Your task to perform on an android device: Do I have any events today? Image 0: 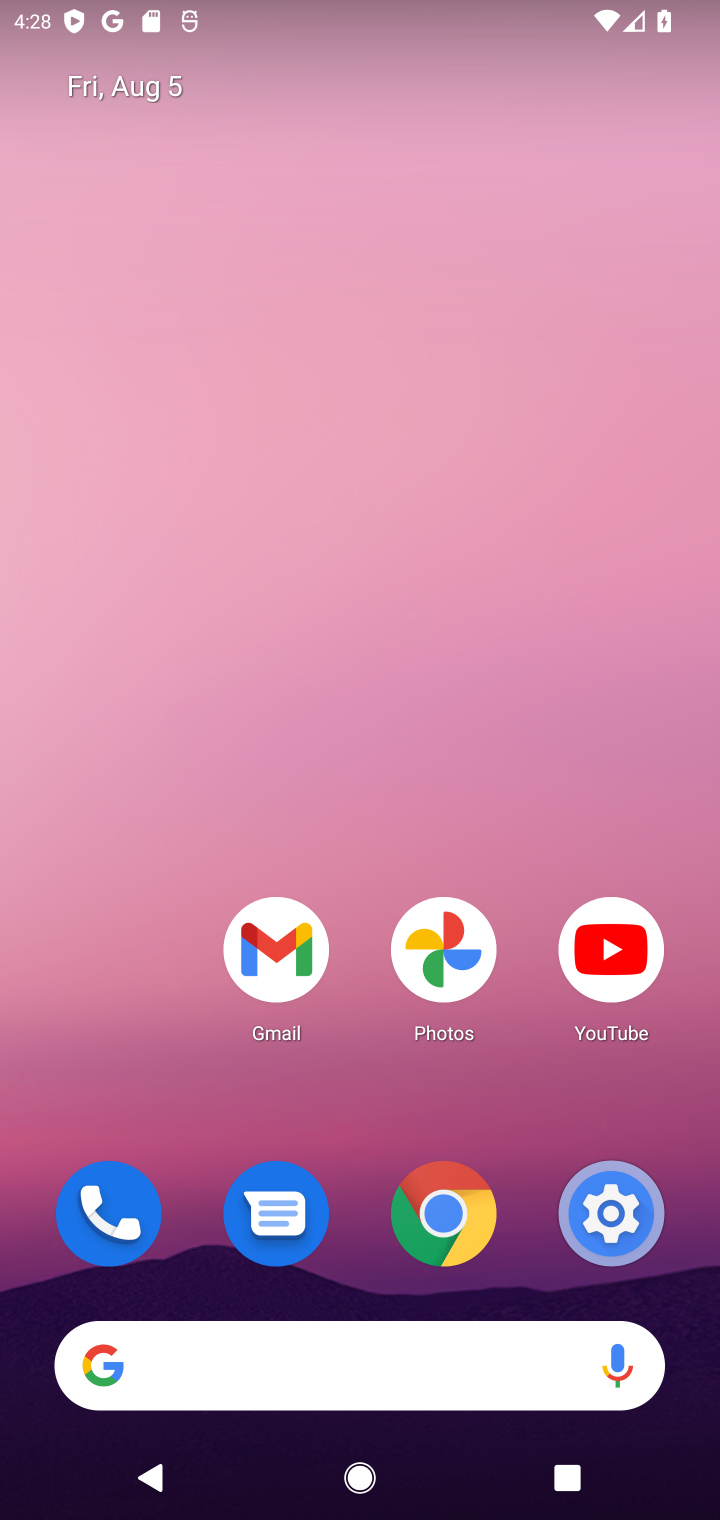
Step 0: press home button
Your task to perform on an android device: Do I have any events today? Image 1: 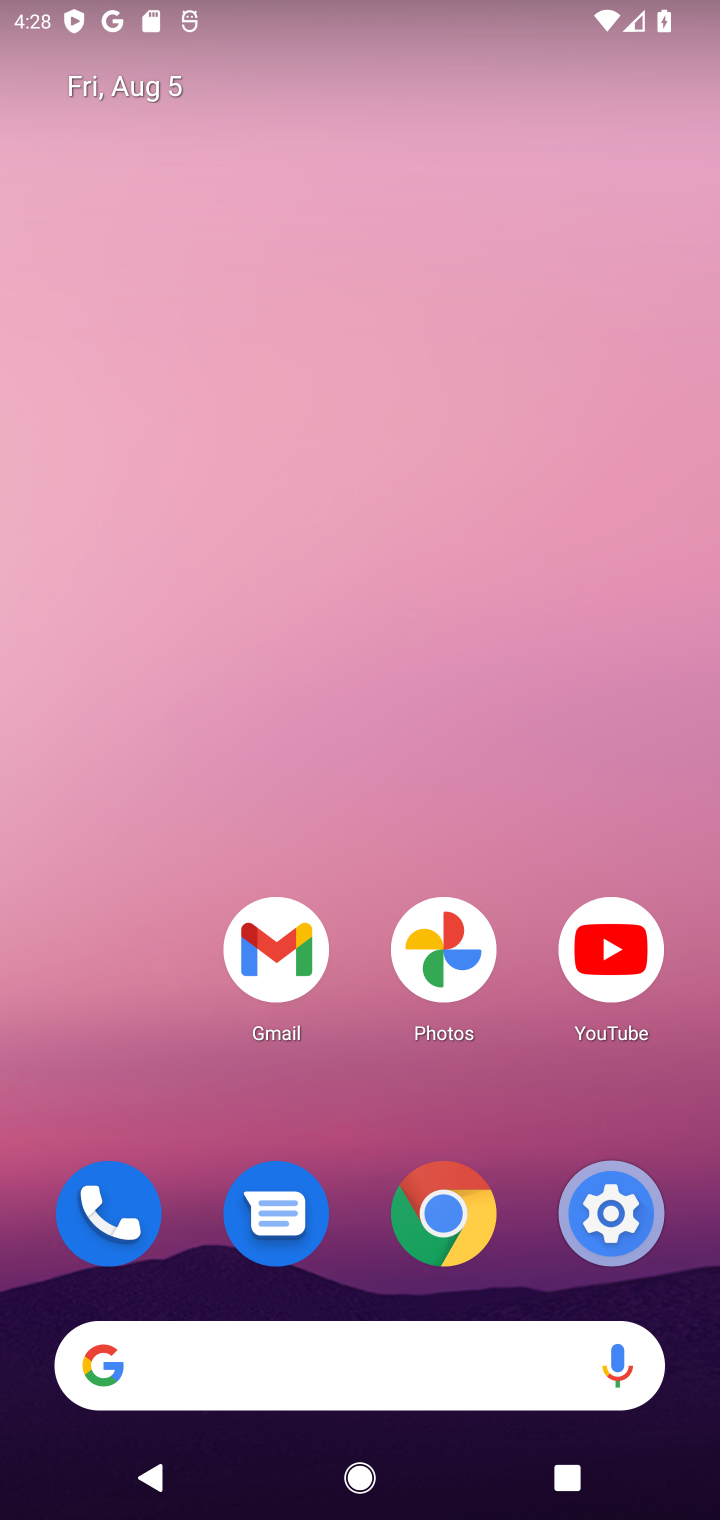
Step 1: drag from (673, 1125) to (645, 564)
Your task to perform on an android device: Do I have any events today? Image 2: 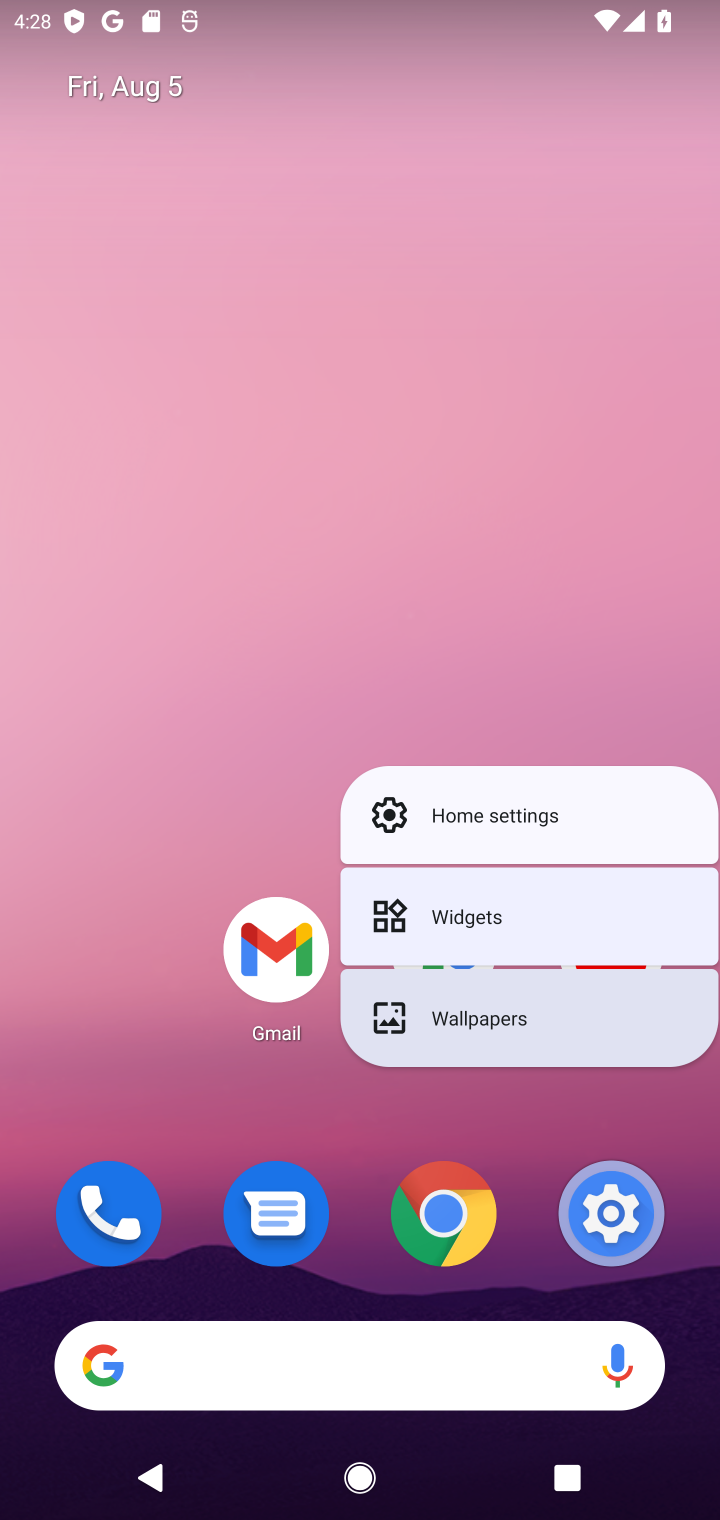
Step 2: drag from (194, 1088) to (303, 285)
Your task to perform on an android device: Do I have any events today? Image 3: 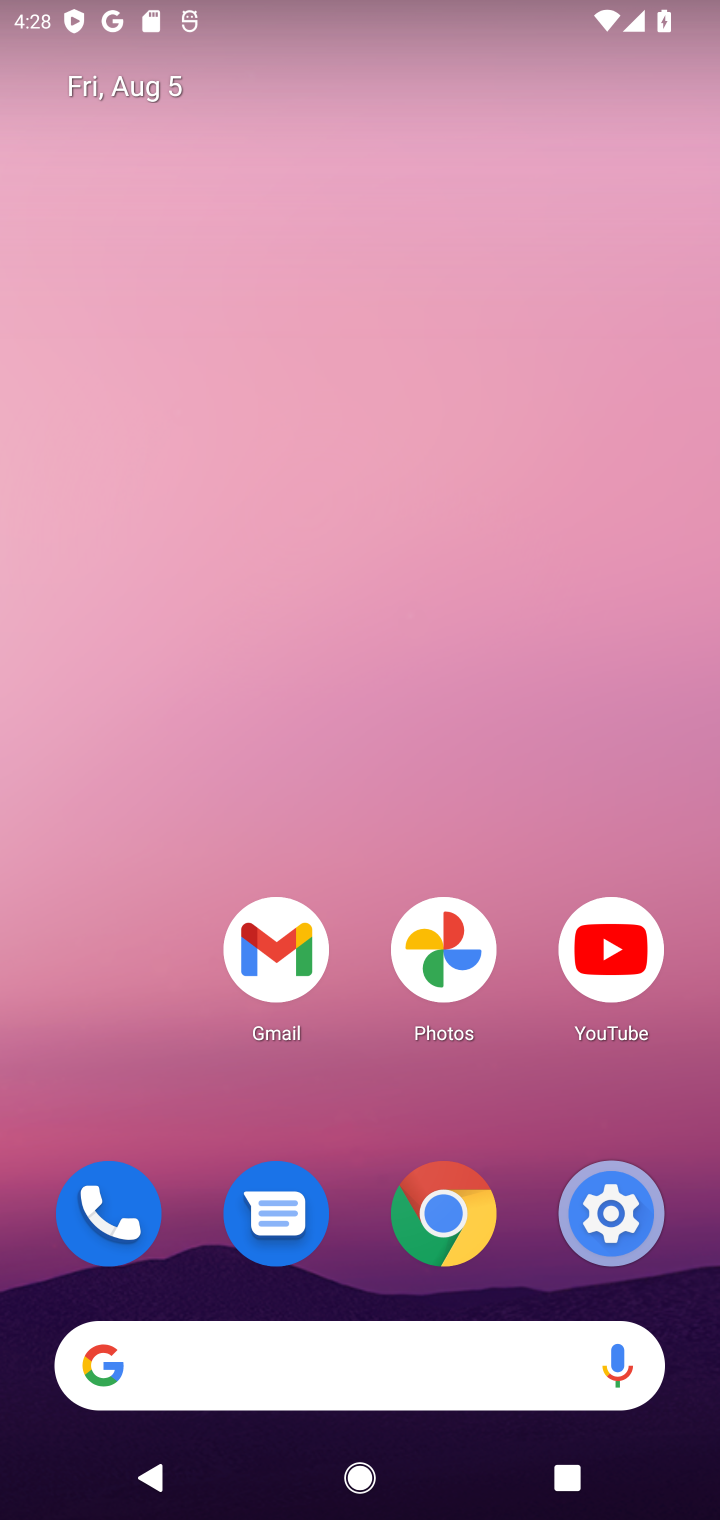
Step 3: drag from (369, 785) to (424, 137)
Your task to perform on an android device: Do I have any events today? Image 4: 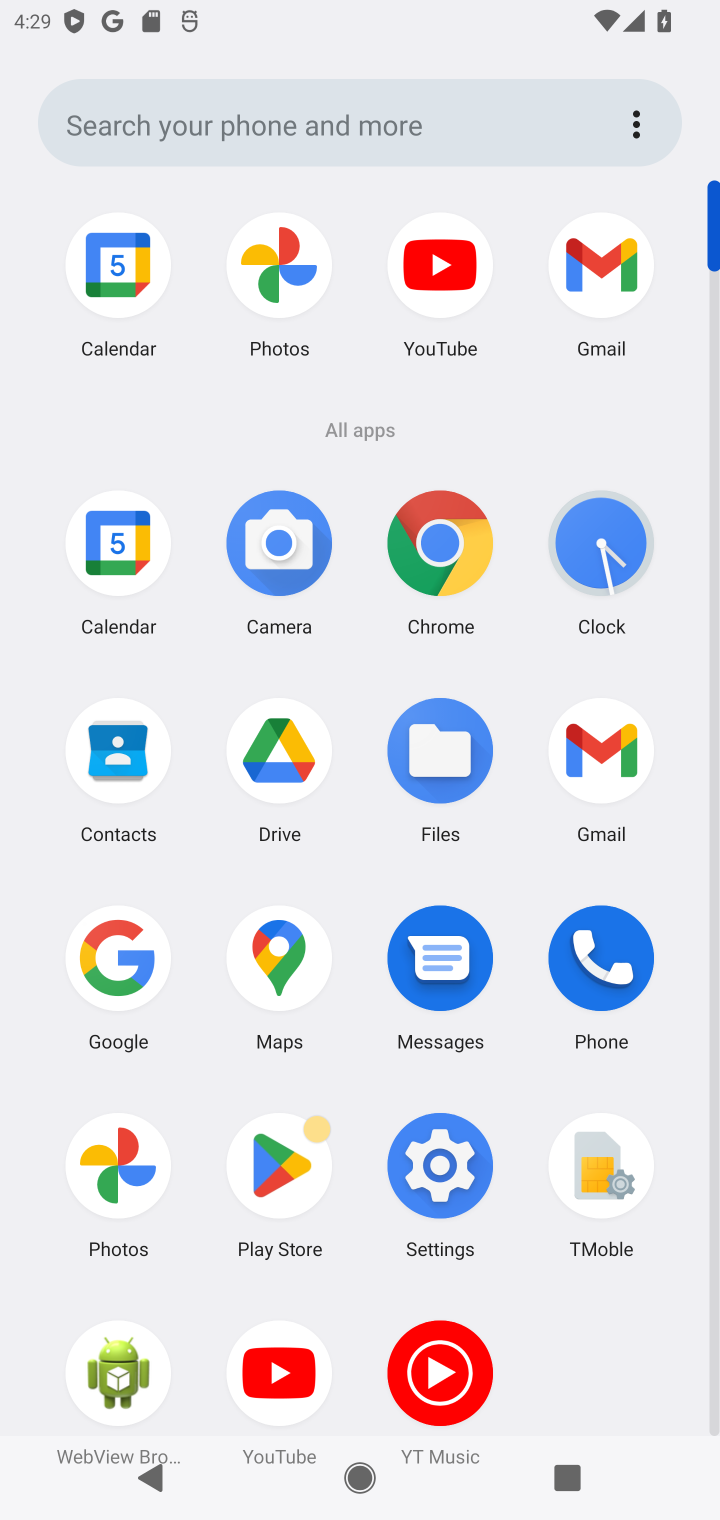
Step 4: click (126, 524)
Your task to perform on an android device: Do I have any events today? Image 5: 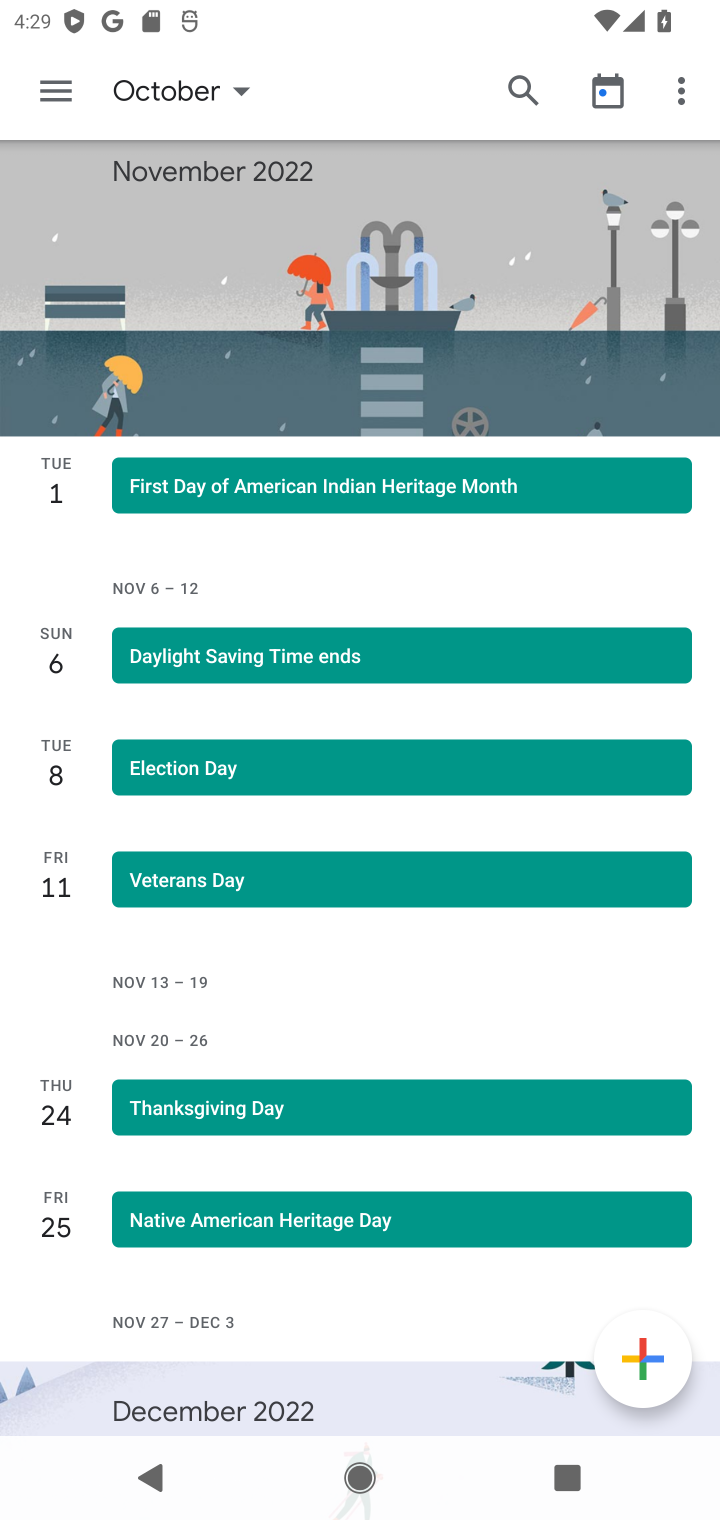
Step 5: click (61, 84)
Your task to perform on an android device: Do I have any events today? Image 6: 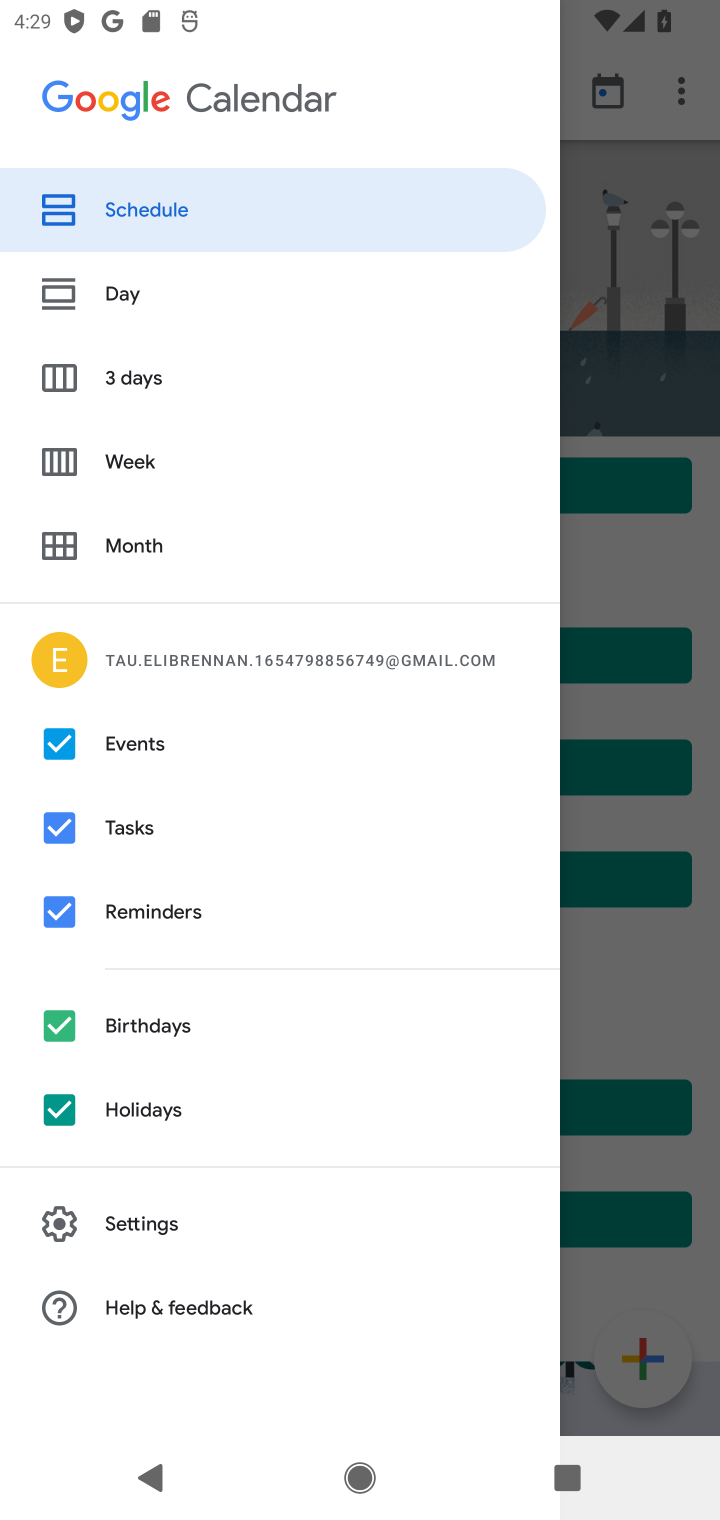
Step 6: click (186, 274)
Your task to perform on an android device: Do I have any events today? Image 7: 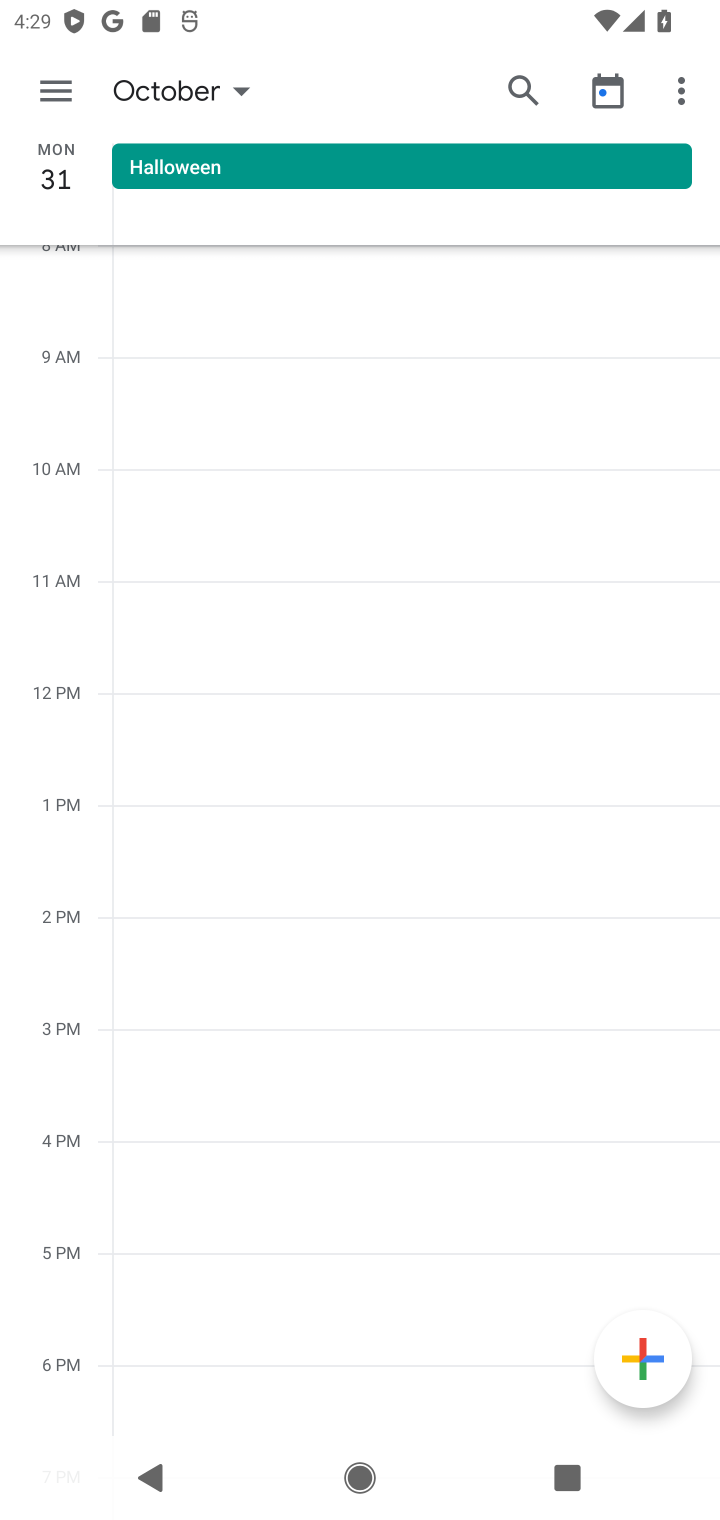
Step 7: click (199, 59)
Your task to perform on an android device: Do I have any events today? Image 8: 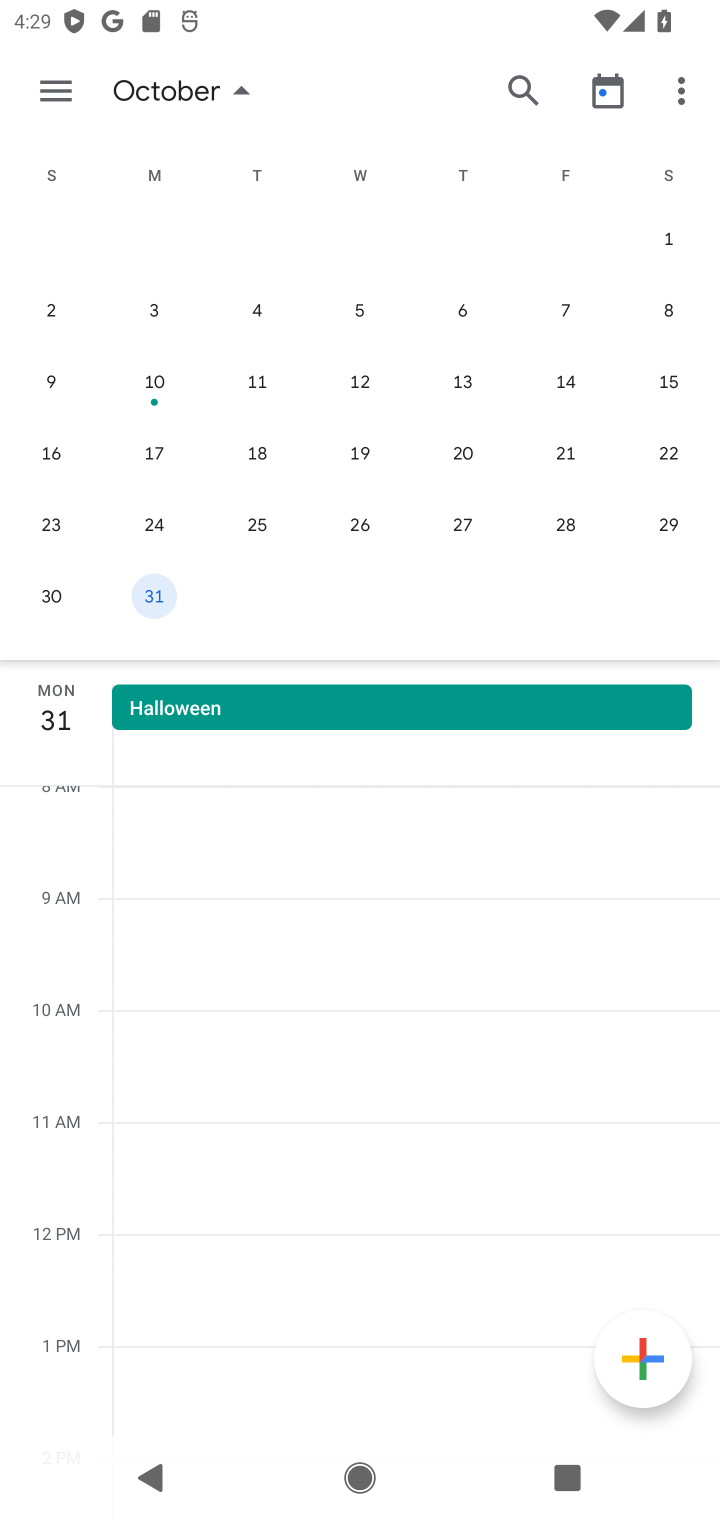
Step 8: drag from (265, 369) to (716, 408)
Your task to perform on an android device: Do I have any events today? Image 9: 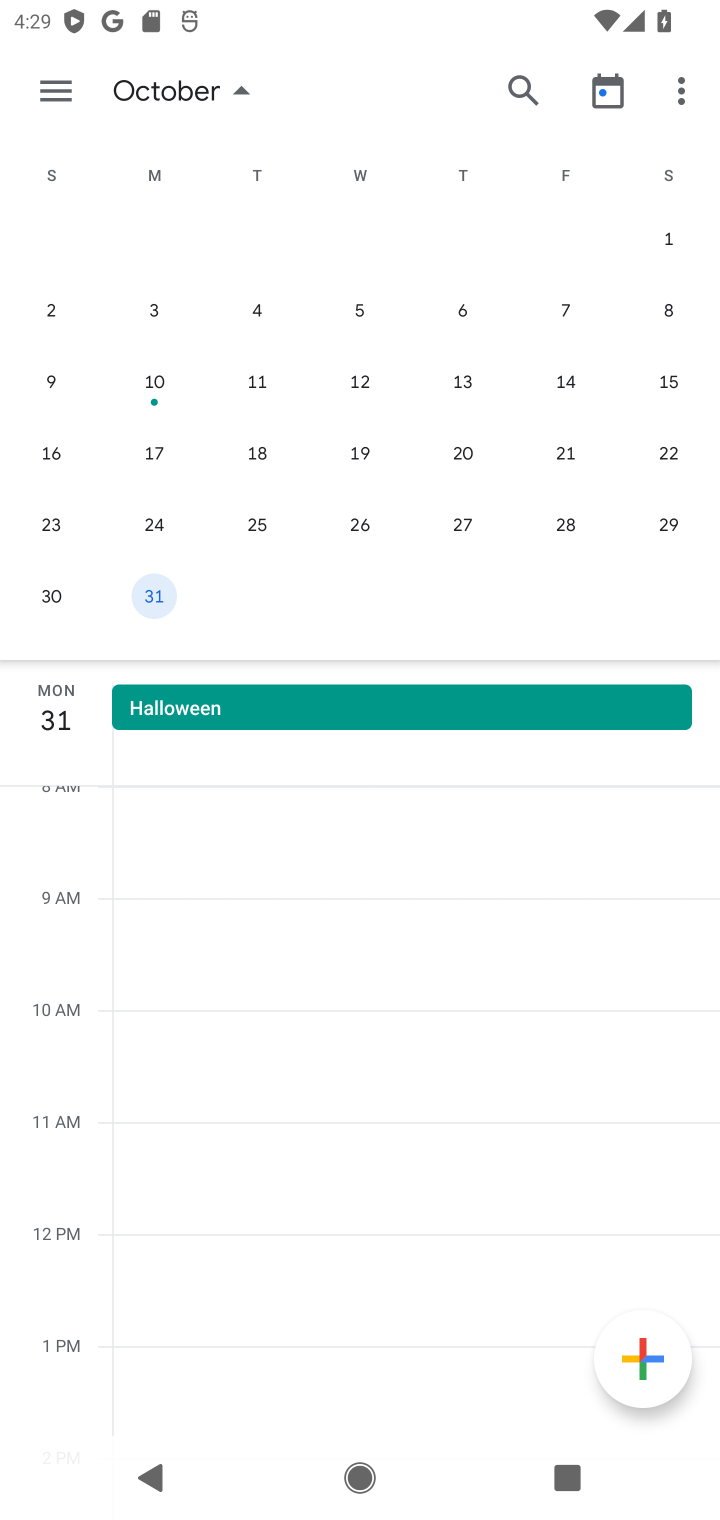
Step 9: drag from (121, 421) to (691, 374)
Your task to perform on an android device: Do I have any events today? Image 10: 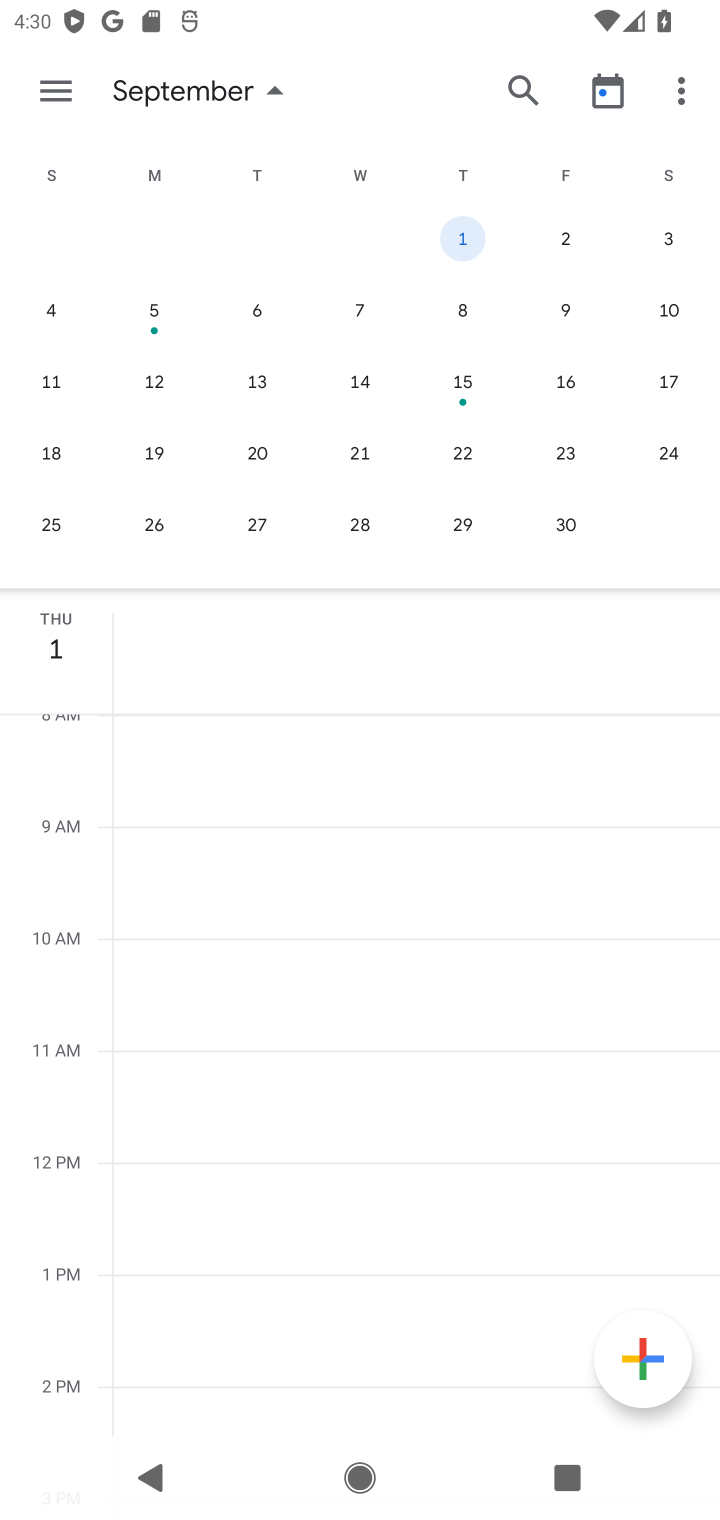
Step 10: drag from (52, 391) to (707, 406)
Your task to perform on an android device: Do I have any events today? Image 11: 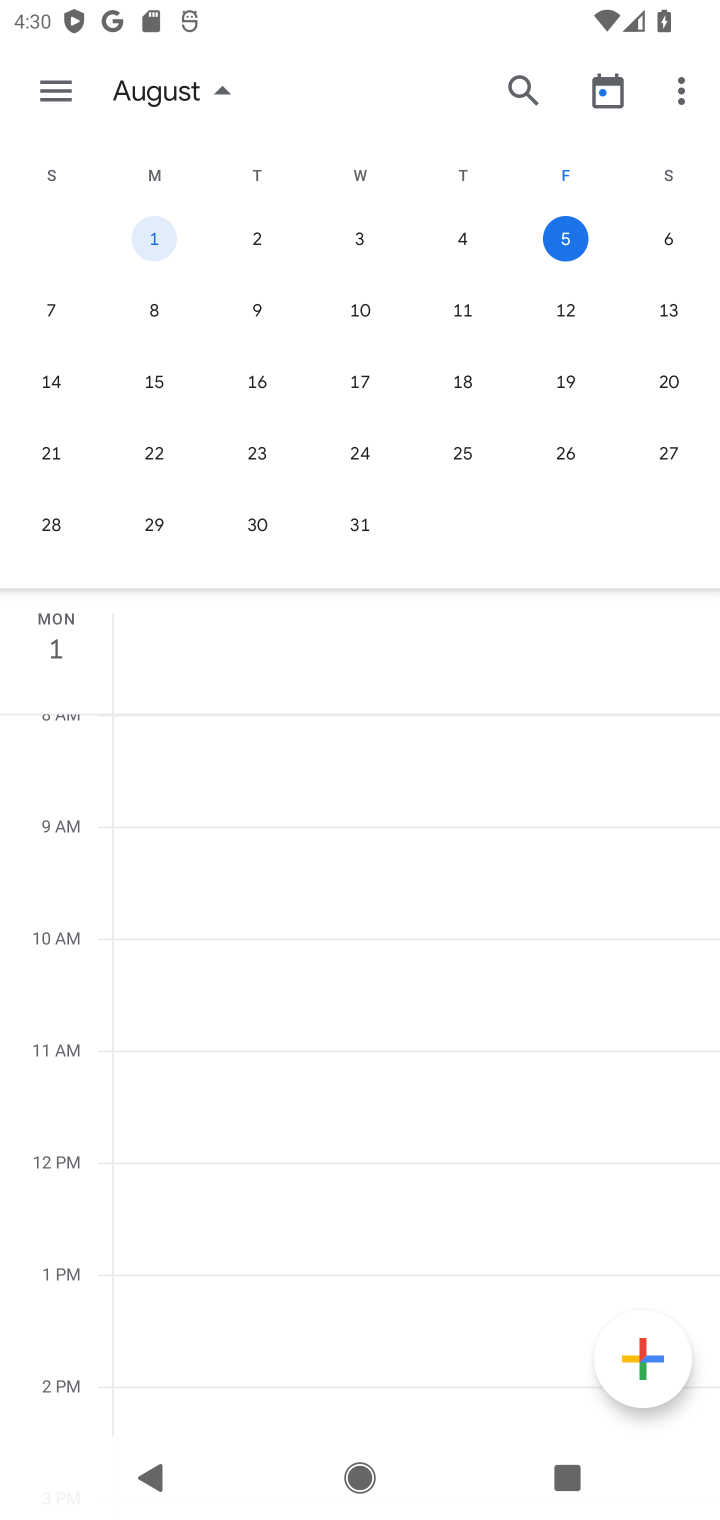
Step 11: click (569, 233)
Your task to perform on an android device: Do I have any events today? Image 12: 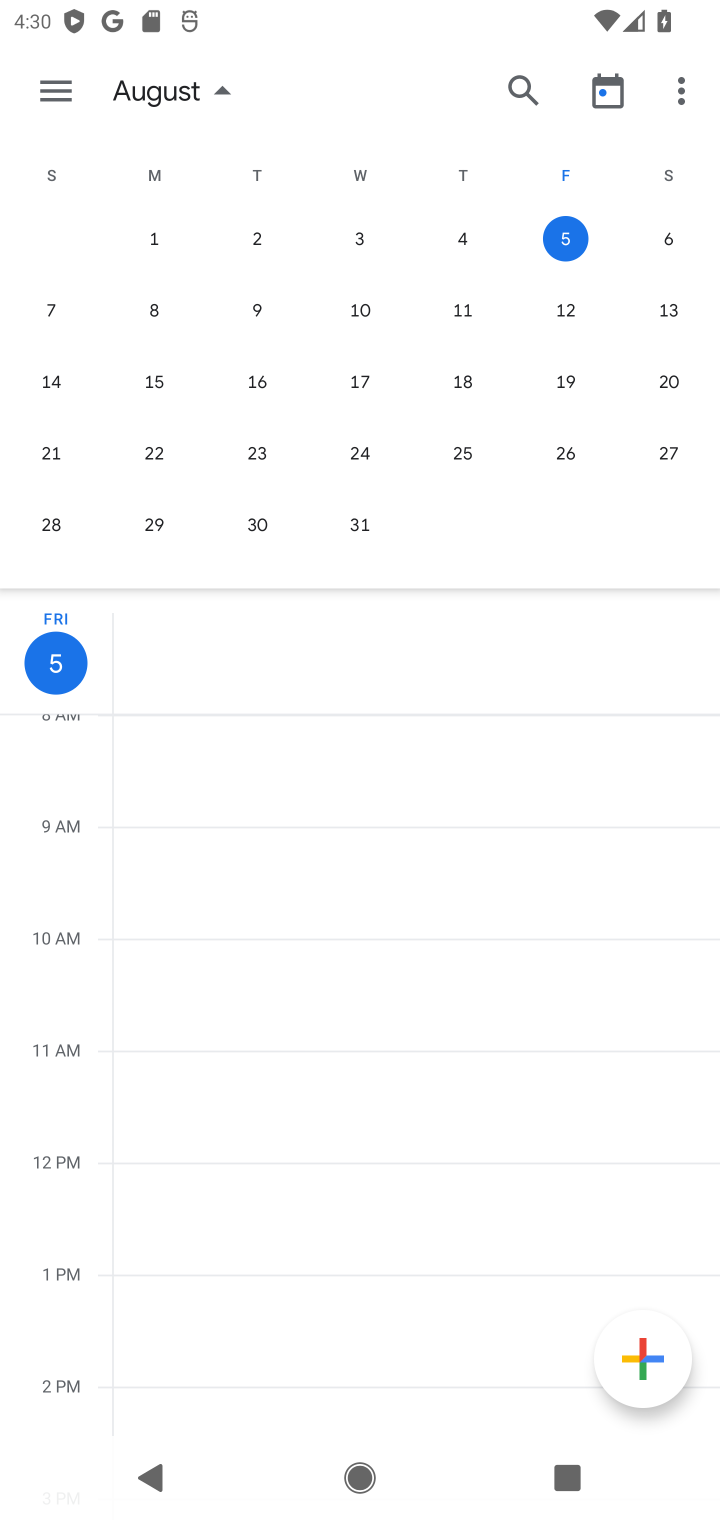
Step 12: task complete